Your task to perform on an android device: Add "macbook air" to the cart on walmart.com Image 0: 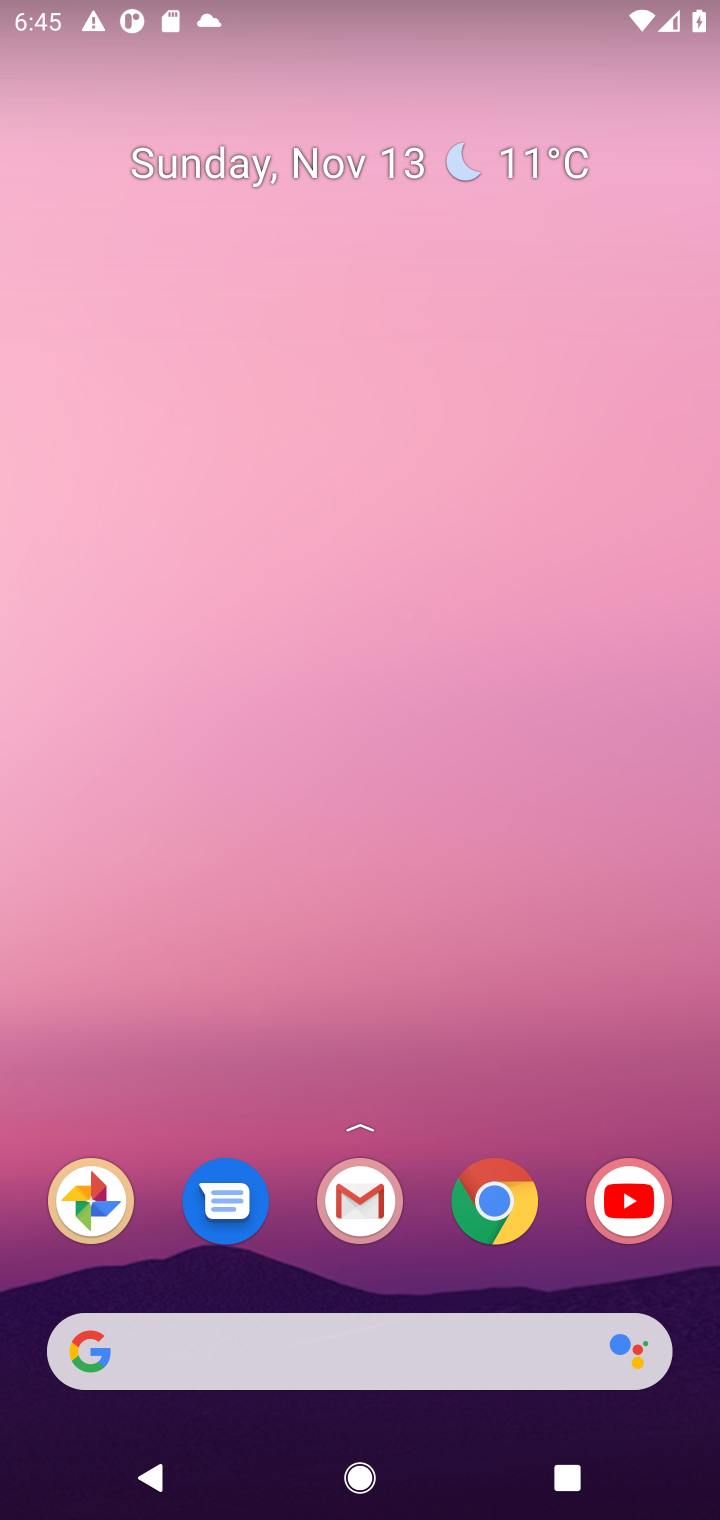
Step 0: drag from (433, 1195) to (506, 188)
Your task to perform on an android device: Add "macbook air" to the cart on walmart.com Image 1: 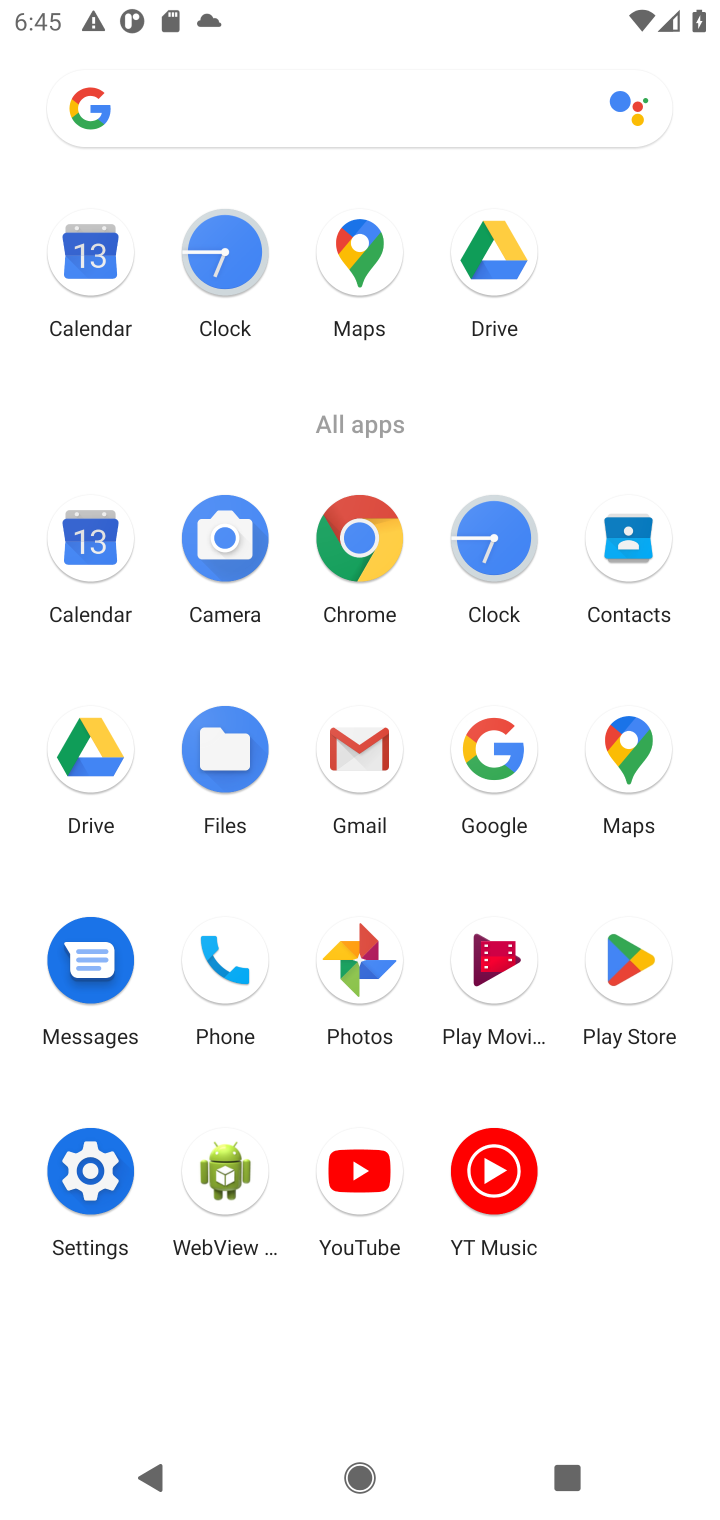
Step 1: click (355, 543)
Your task to perform on an android device: Add "macbook air" to the cart on walmart.com Image 2: 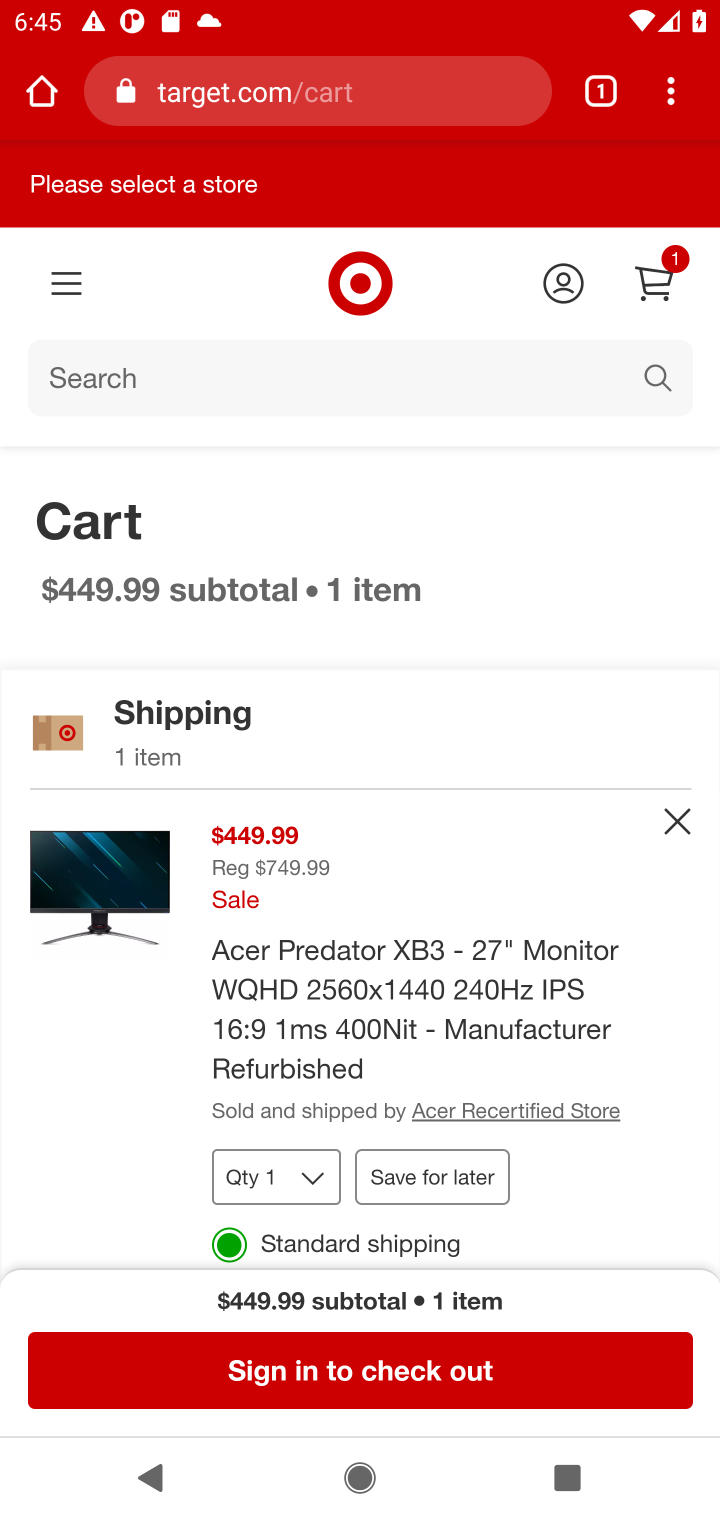
Step 2: click (366, 83)
Your task to perform on an android device: Add "macbook air" to the cart on walmart.com Image 3: 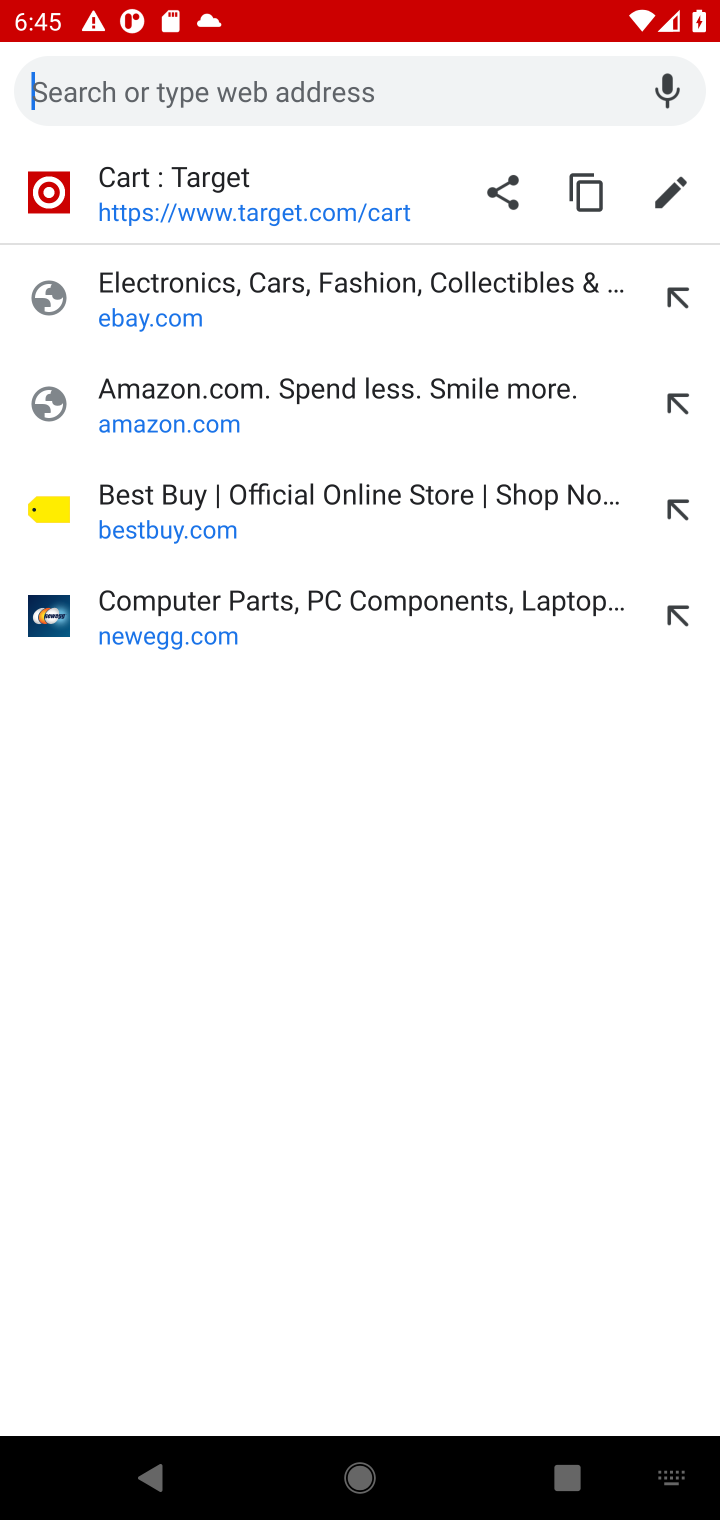
Step 3: type "walmart.com"
Your task to perform on an android device: Add "macbook air" to the cart on walmart.com Image 4: 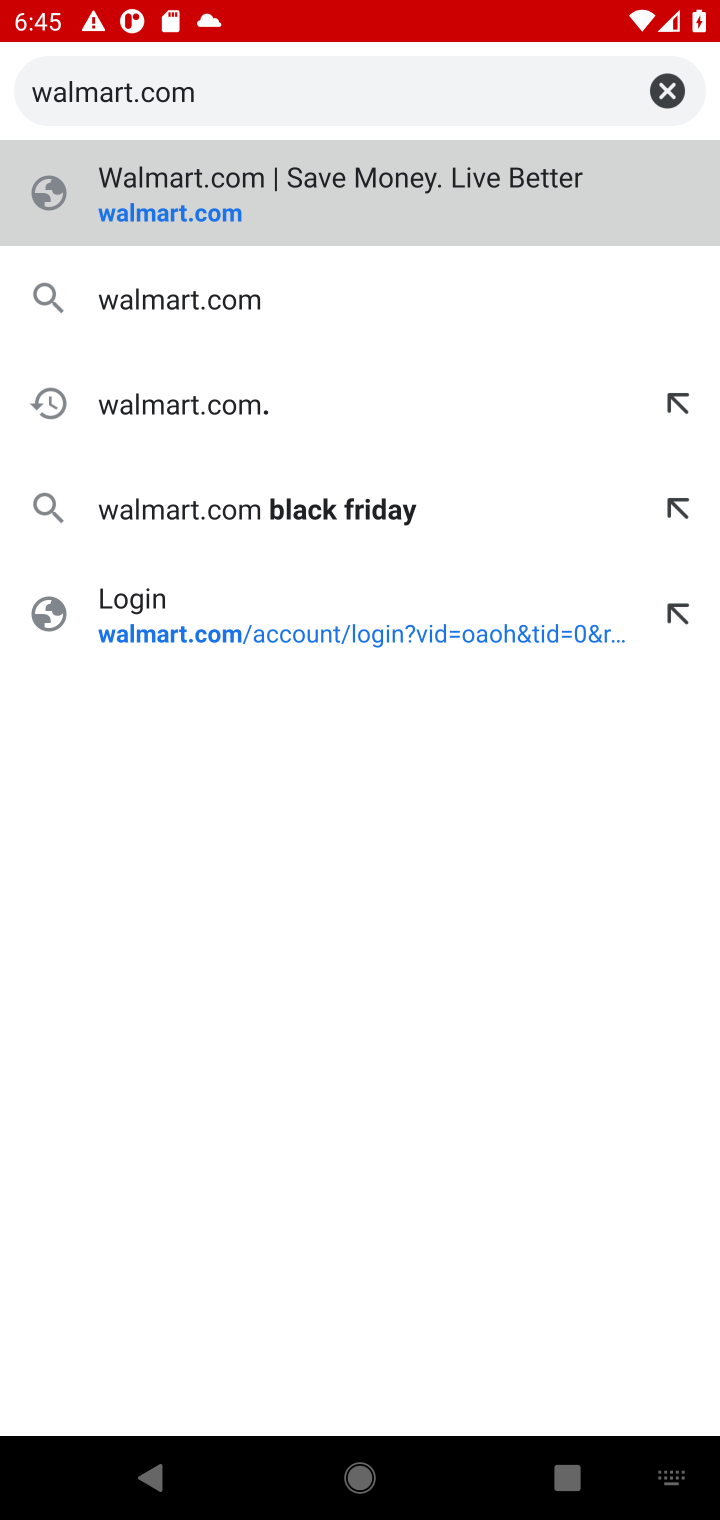
Step 4: press enter
Your task to perform on an android device: Add "macbook air" to the cart on walmart.com Image 5: 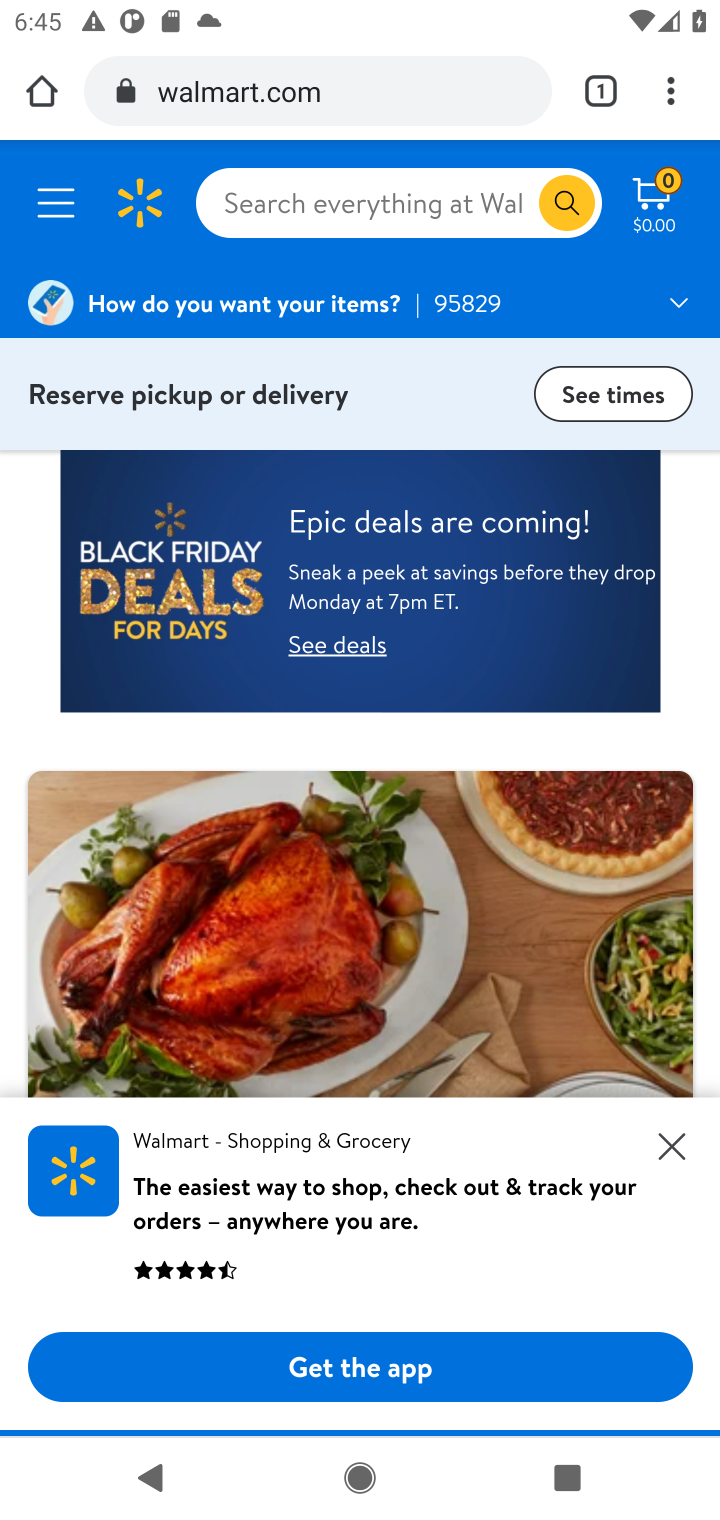
Step 5: click (419, 188)
Your task to perform on an android device: Add "macbook air" to the cart on walmart.com Image 6: 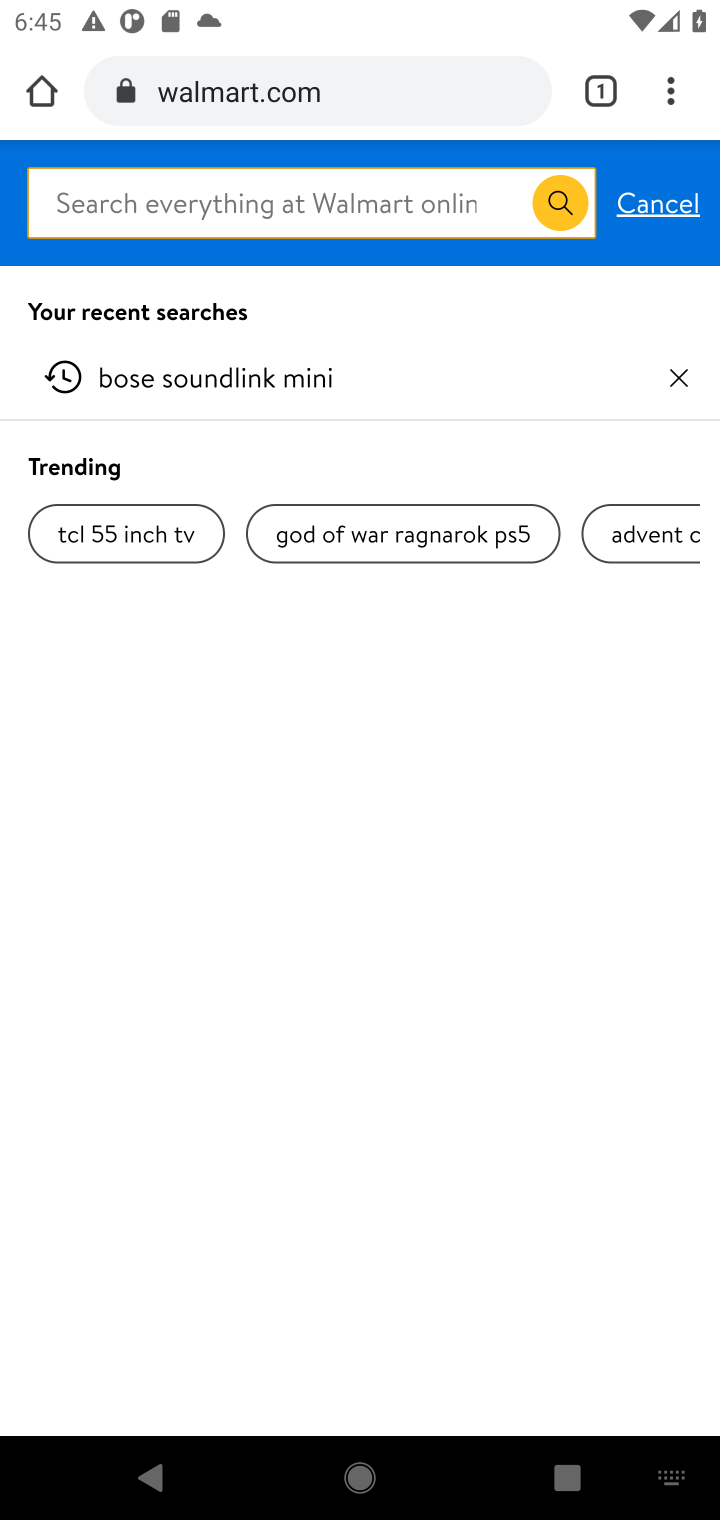
Step 6: type "macbook air"
Your task to perform on an android device: Add "macbook air" to the cart on walmart.com Image 7: 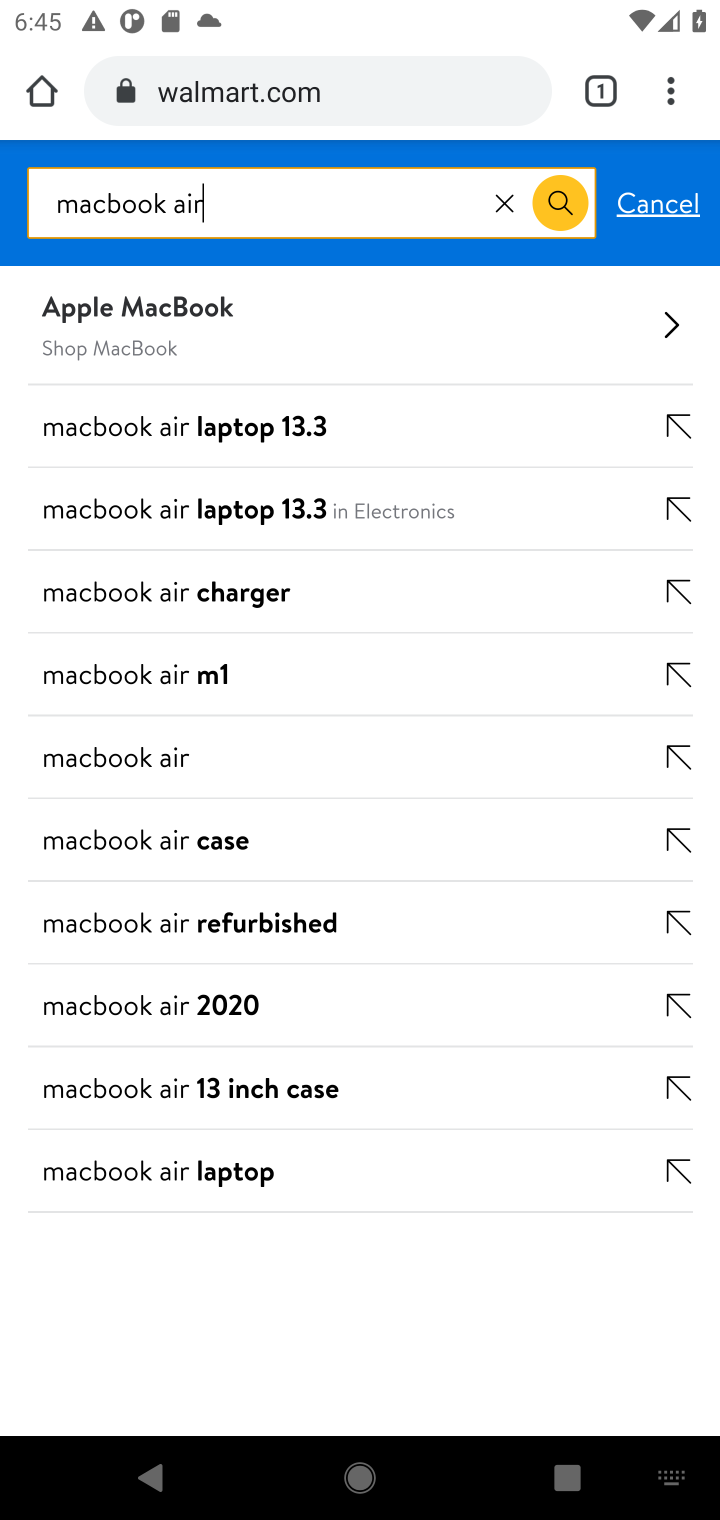
Step 7: press enter
Your task to perform on an android device: Add "macbook air" to the cart on walmart.com Image 8: 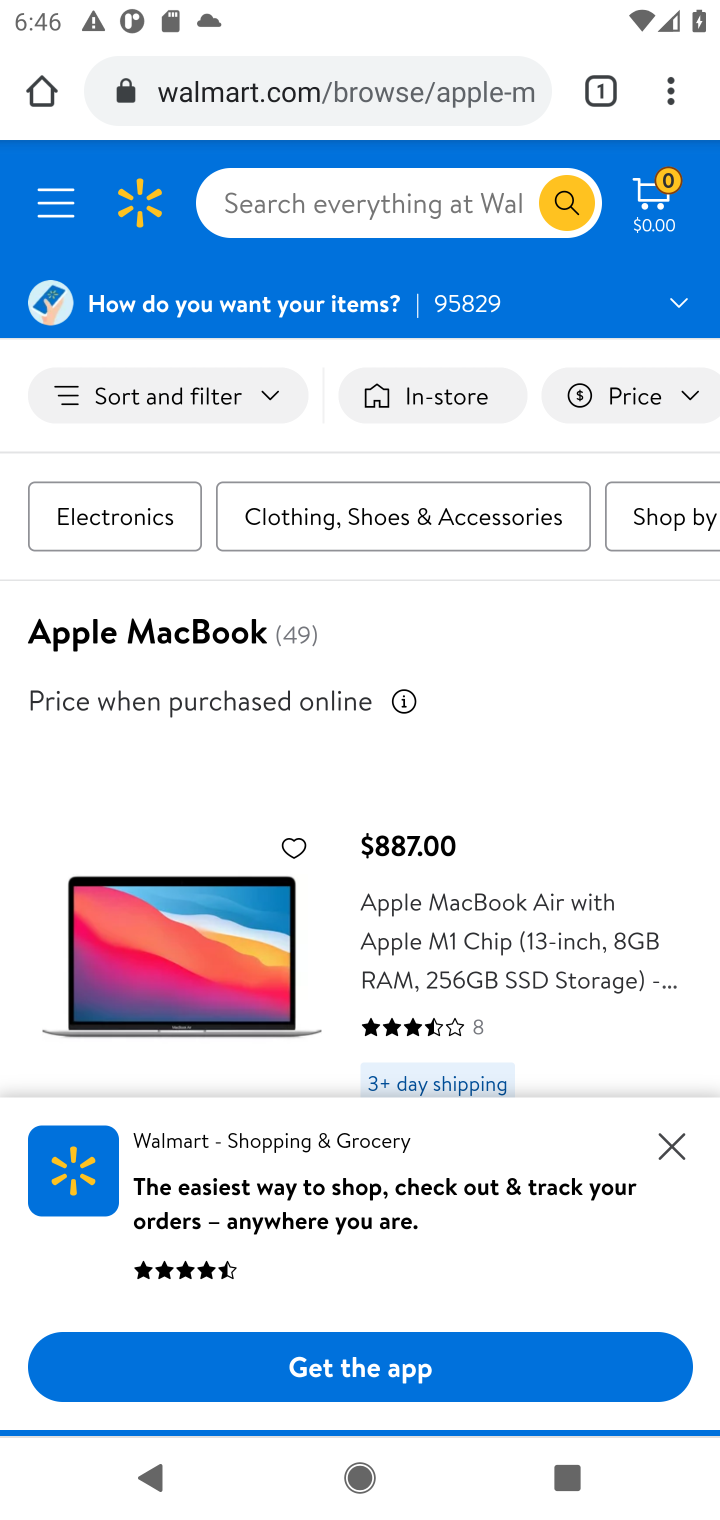
Step 8: drag from (316, 1004) to (319, 807)
Your task to perform on an android device: Add "macbook air" to the cart on walmart.com Image 9: 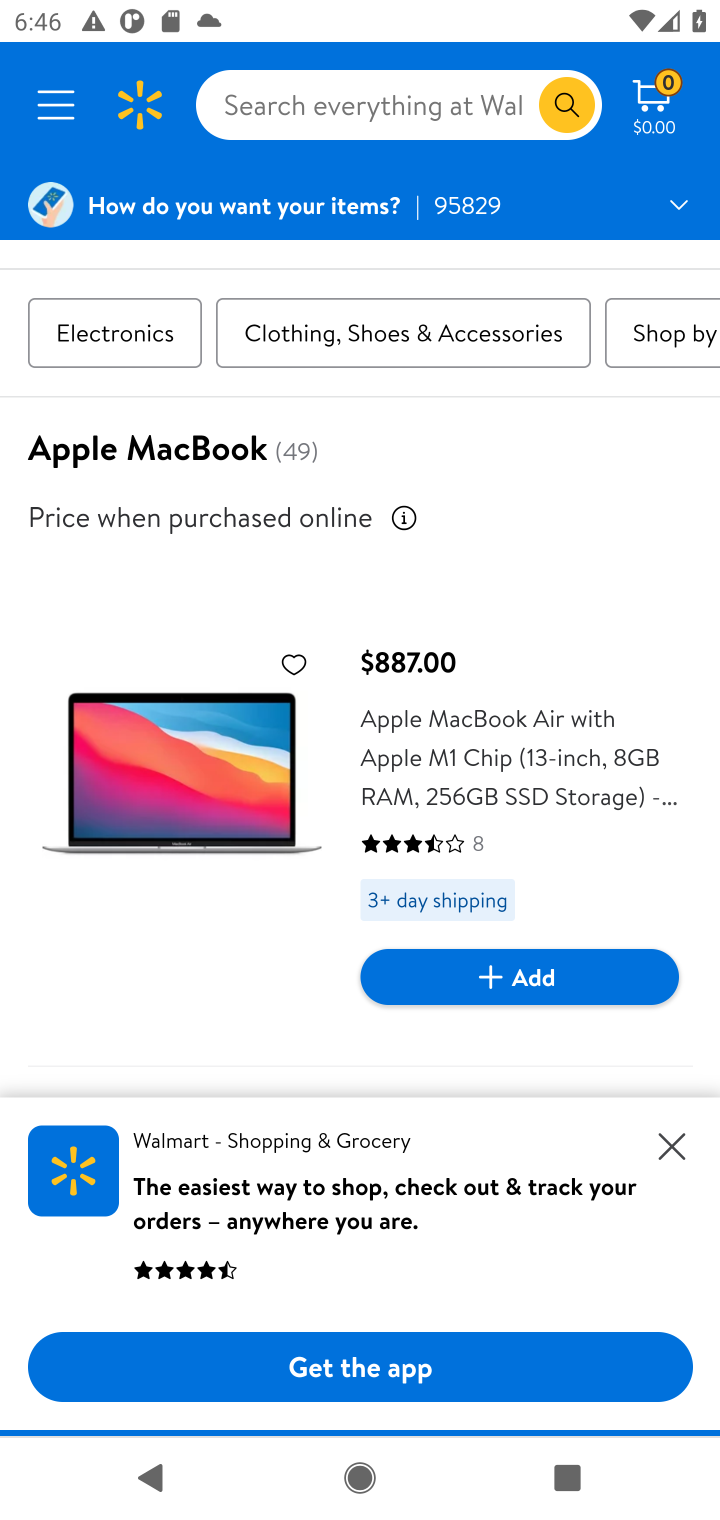
Step 9: click (551, 978)
Your task to perform on an android device: Add "macbook air" to the cart on walmart.com Image 10: 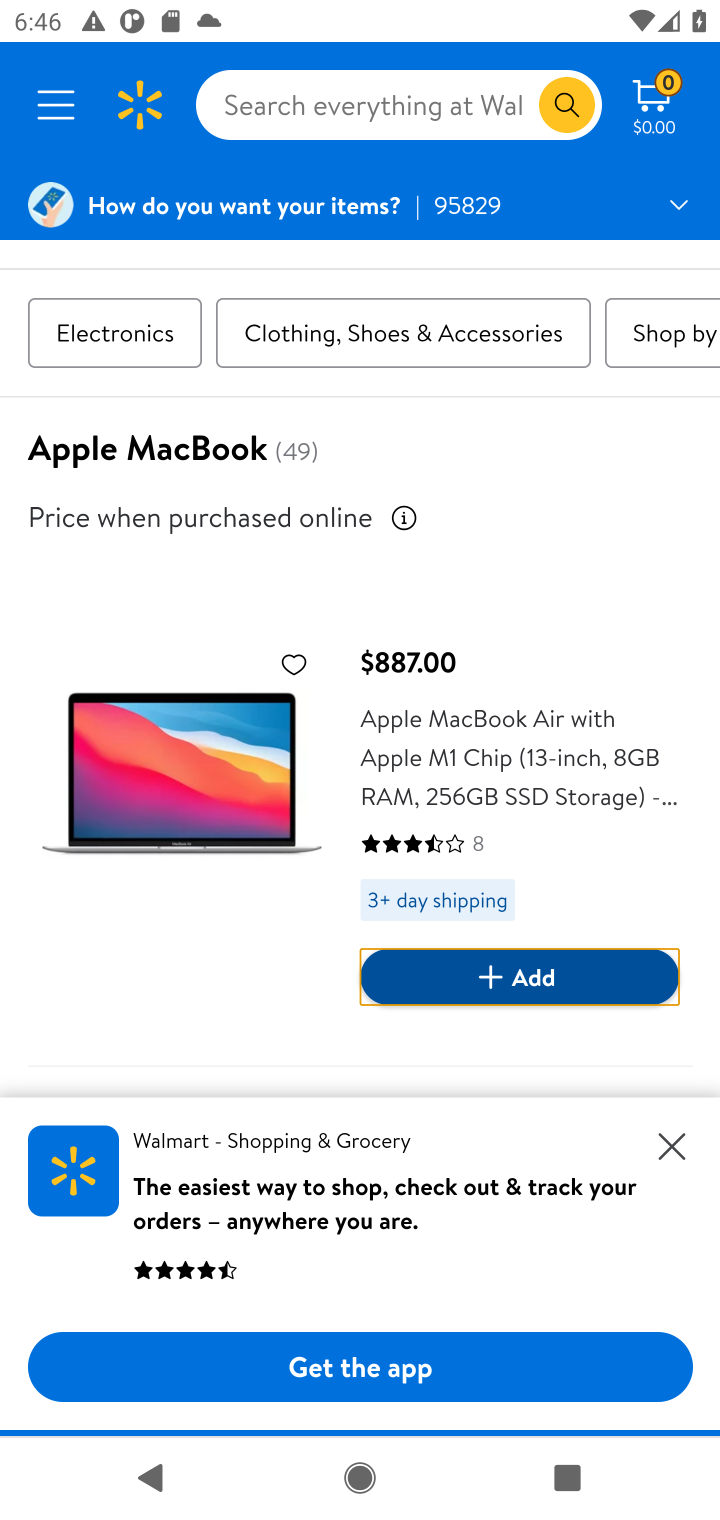
Step 10: click (531, 984)
Your task to perform on an android device: Add "macbook air" to the cart on walmart.com Image 11: 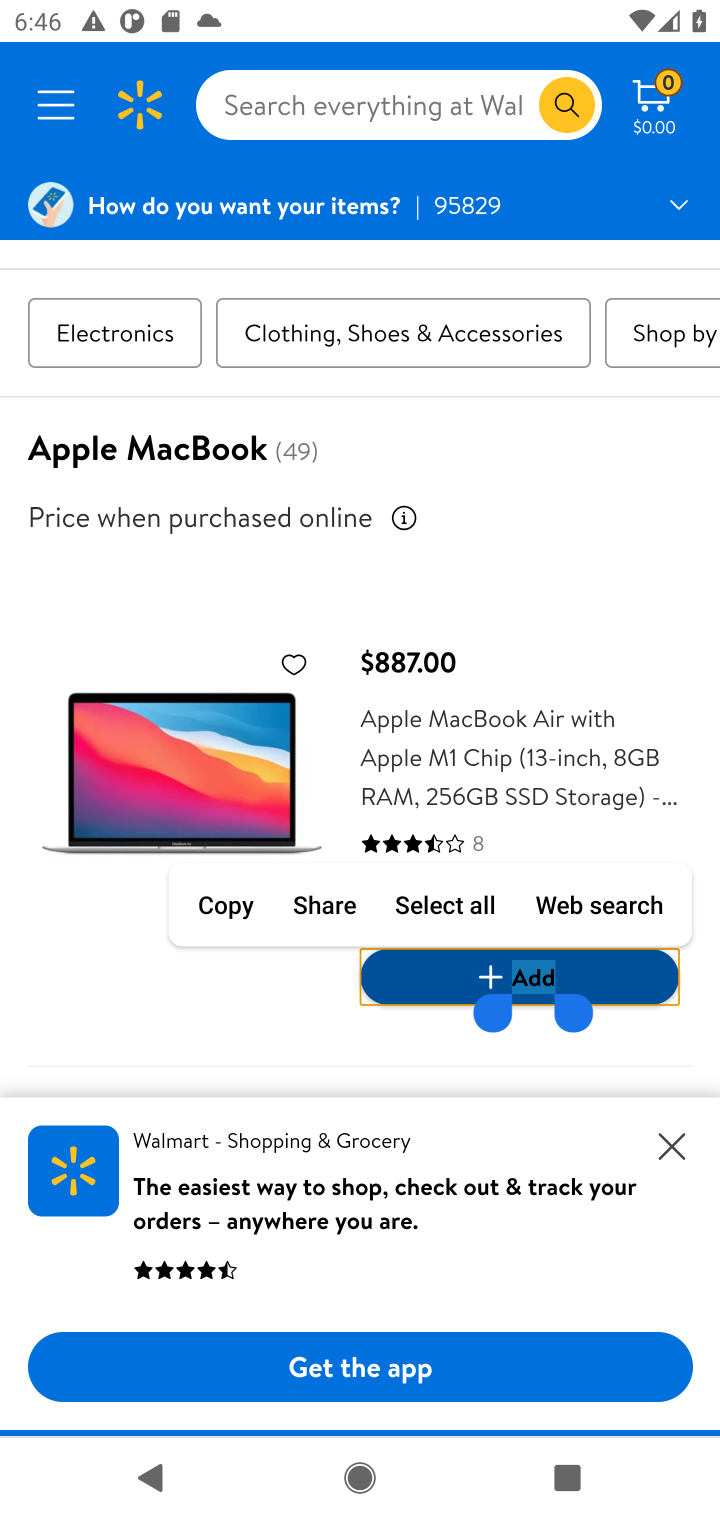
Step 11: click (509, 972)
Your task to perform on an android device: Add "macbook air" to the cart on walmart.com Image 12: 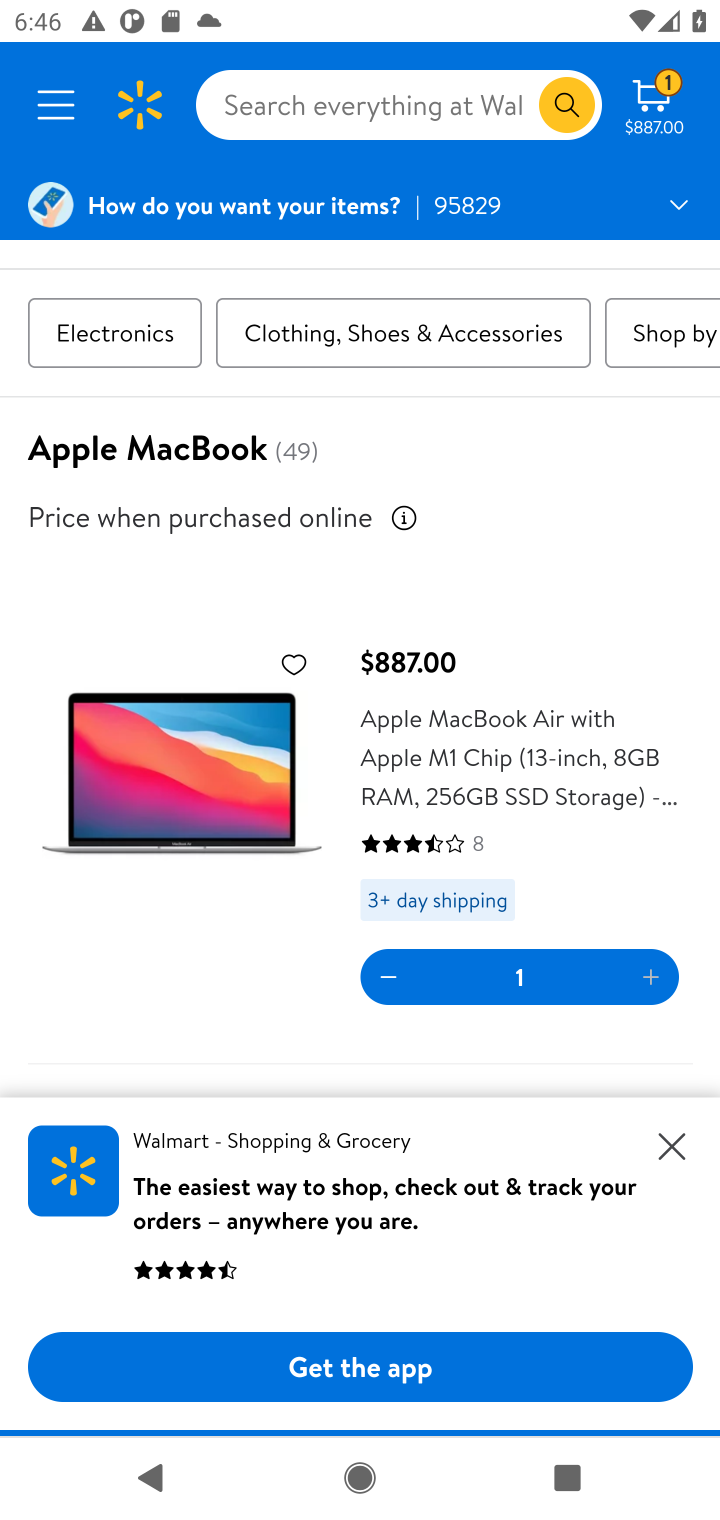
Step 12: task complete